Your task to perform on an android device: Show me popular games on the Play Store Image 0: 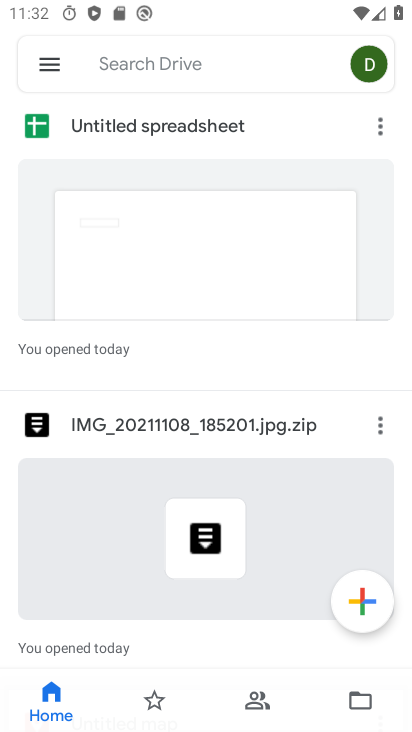
Step 0: press home button
Your task to perform on an android device: Show me popular games on the Play Store Image 1: 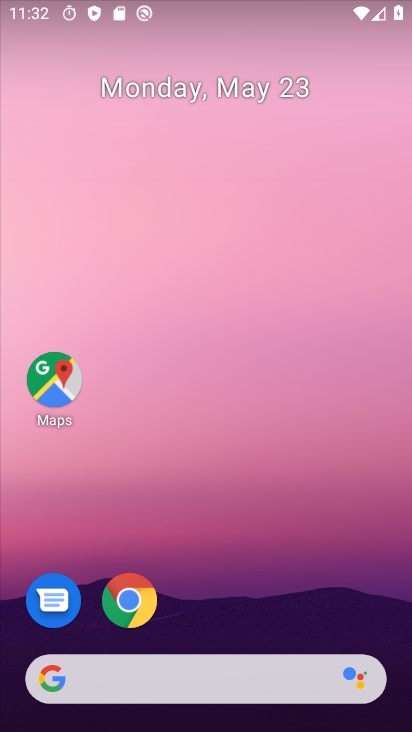
Step 1: drag from (270, 601) to (331, 15)
Your task to perform on an android device: Show me popular games on the Play Store Image 2: 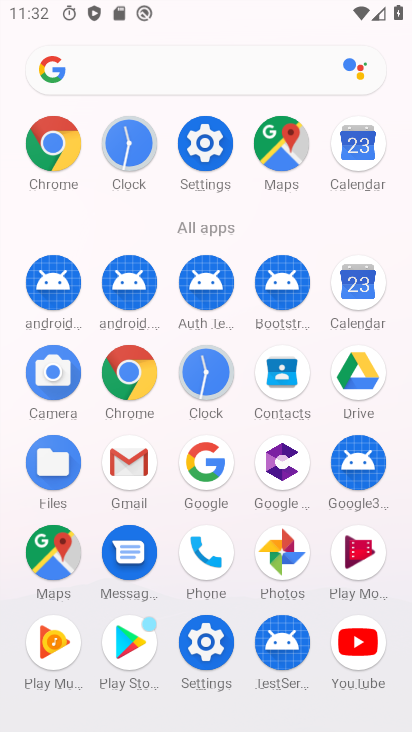
Step 2: click (139, 638)
Your task to perform on an android device: Show me popular games on the Play Store Image 3: 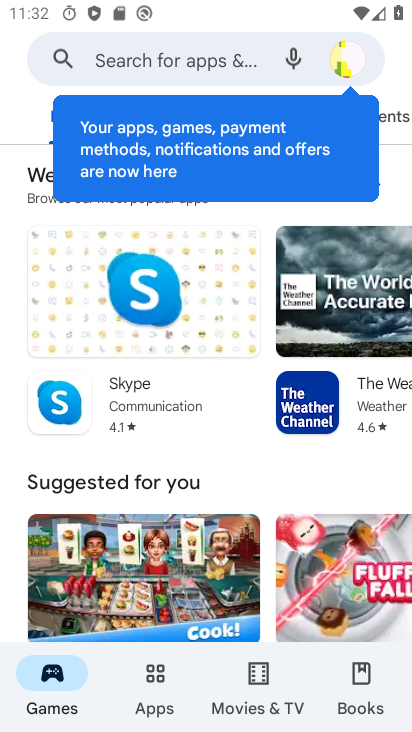
Step 3: drag from (173, 570) to (260, 106)
Your task to perform on an android device: Show me popular games on the Play Store Image 4: 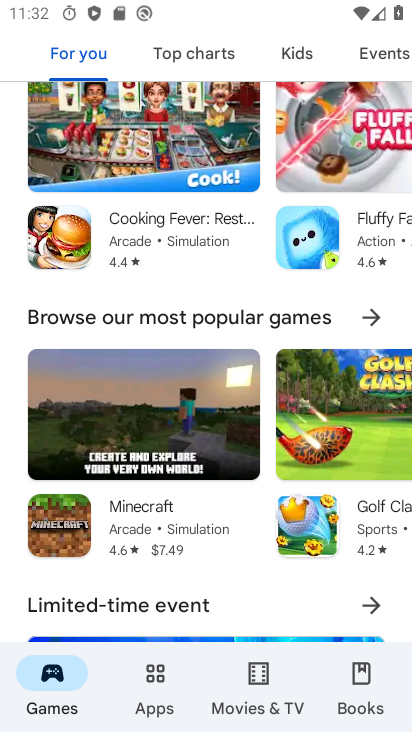
Step 4: drag from (197, 549) to (301, 115)
Your task to perform on an android device: Show me popular games on the Play Store Image 5: 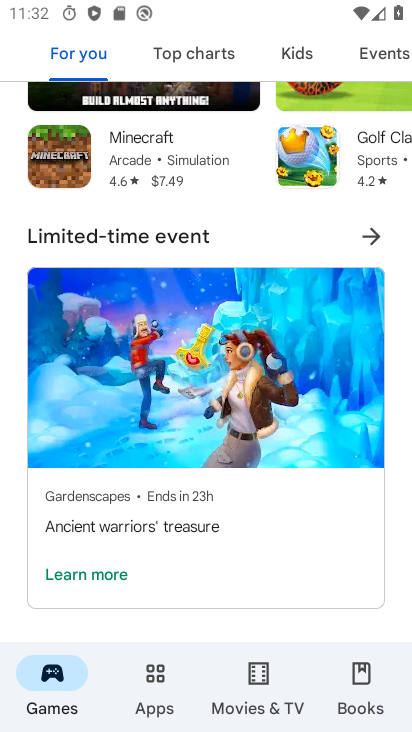
Step 5: drag from (206, 496) to (298, 109)
Your task to perform on an android device: Show me popular games on the Play Store Image 6: 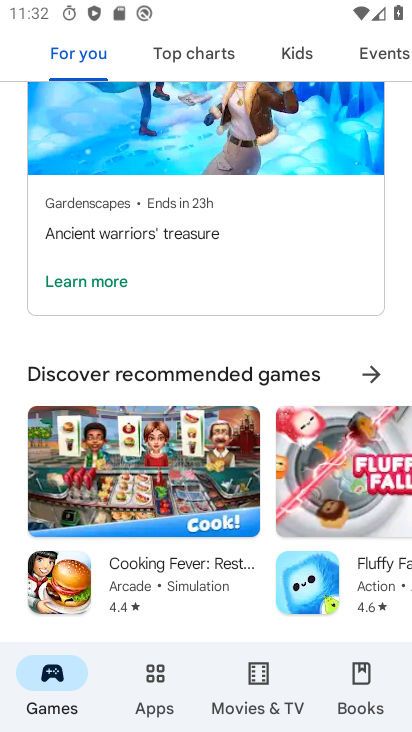
Step 6: drag from (206, 474) to (340, 104)
Your task to perform on an android device: Show me popular games on the Play Store Image 7: 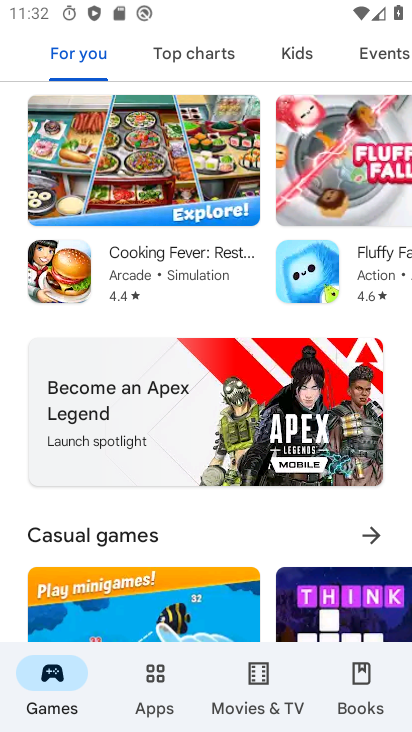
Step 7: drag from (228, 501) to (356, 141)
Your task to perform on an android device: Show me popular games on the Play Store Image 8: 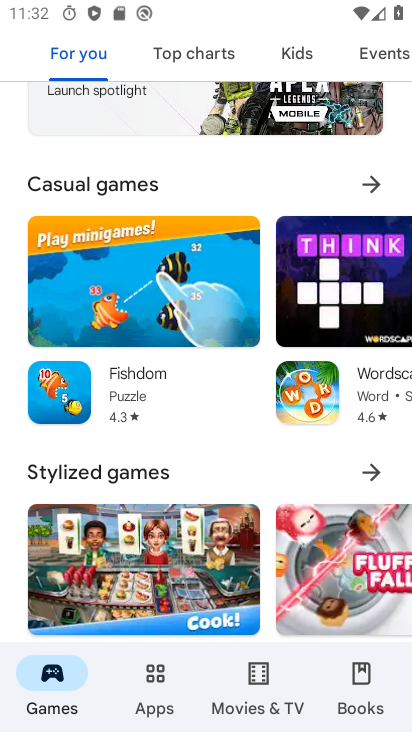
Step 8: drag from (236, 453) to (317, 166)
Your task to perform on an android device: Show me popular games on the Play Store Image 9: 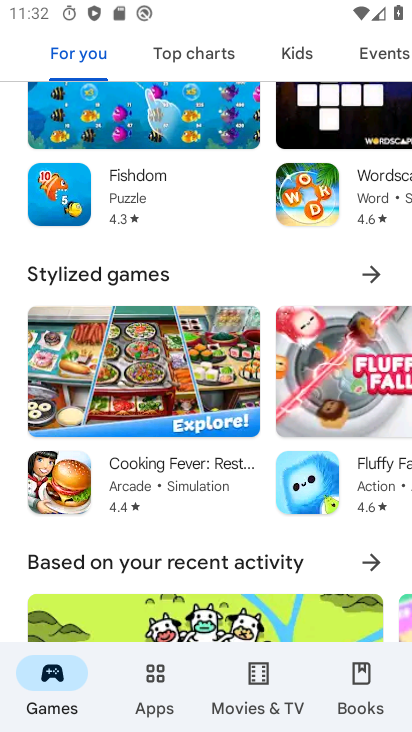
Step 9: drag from (189, 597) to (302, 245)
Your task to perform on an android device: Show me popular games on the Play Store Image 10: 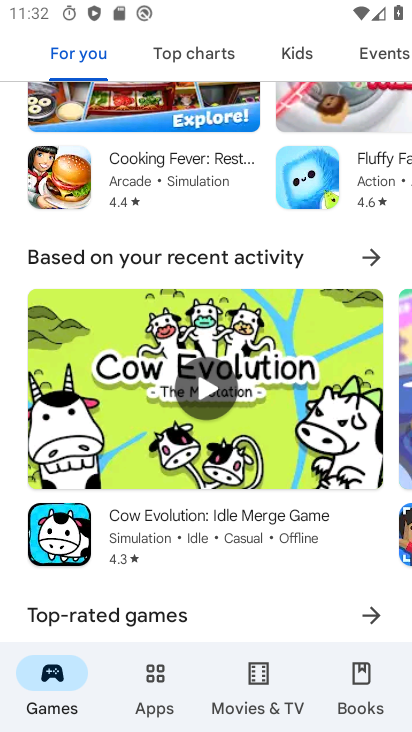
Step 10: drag from (201, 593) to (310, 298)
Your task to perform on an android device: Show me popular games on the Play Store Image 11: 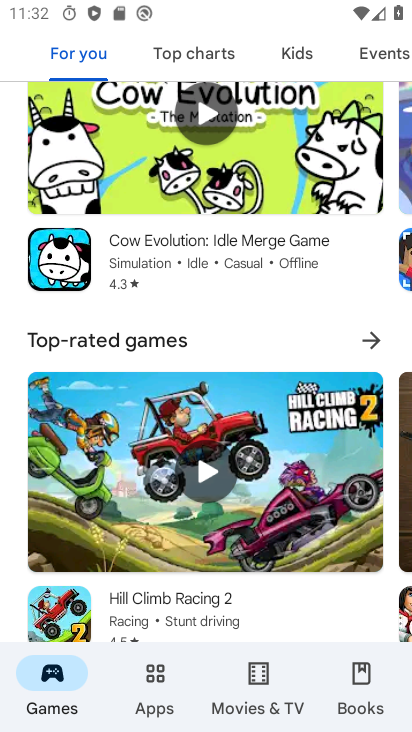
Step 11: drag from (232, 569) to (284, 256)
Your task to perform on an android device: Show me popular games on the Play Store Image 12: 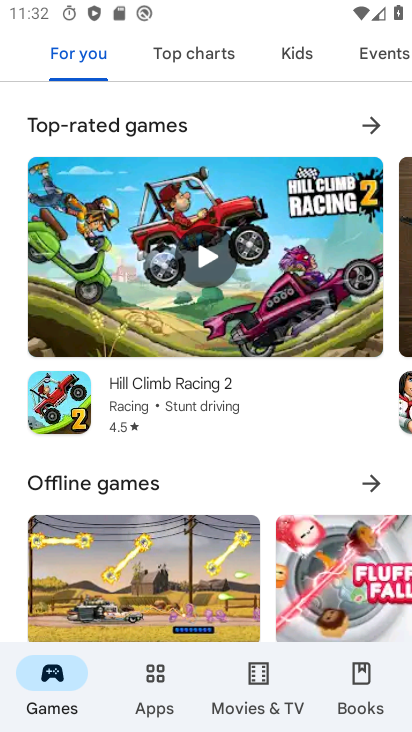
Step 12: drag from (254, 477) to (293, 1)
Your task to perform on an android device: Show me popular games on the Play Store Image 13: 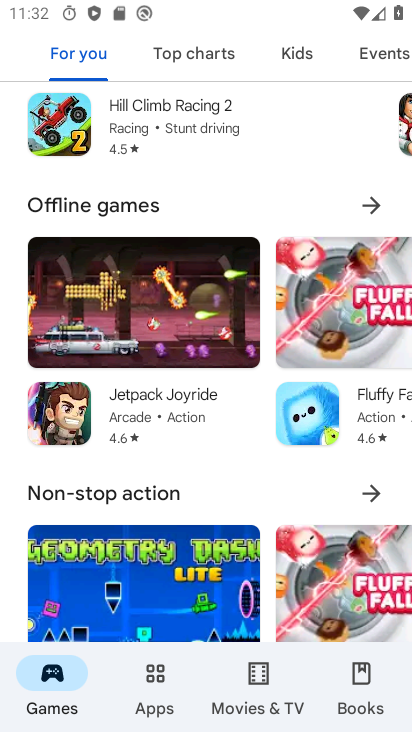
Step 13: drag from (249, 485) to (287, 43)
Your task to perform on an android device: Show me popular games on the Play Store Image 14: 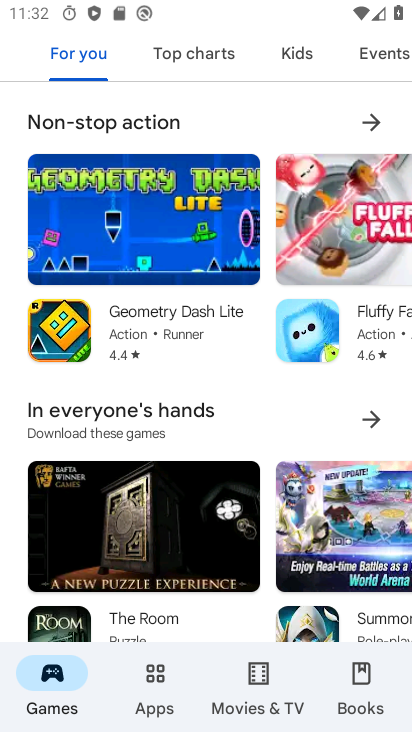
Step 14: drag from (241, 436) to (297, 60)
Your task to perform on an android device: Show me popular games on the Play Store Image 15: 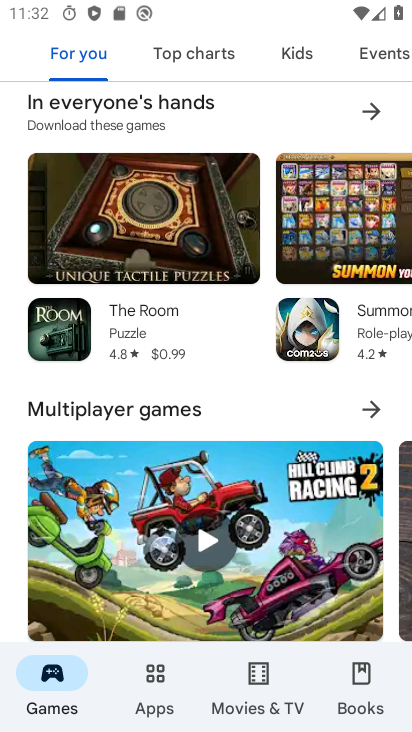
Step 15: drag from (236, 470) to (293, 108)
Your task to perform on an android device: Show me popular games on the Play Store Image 16: 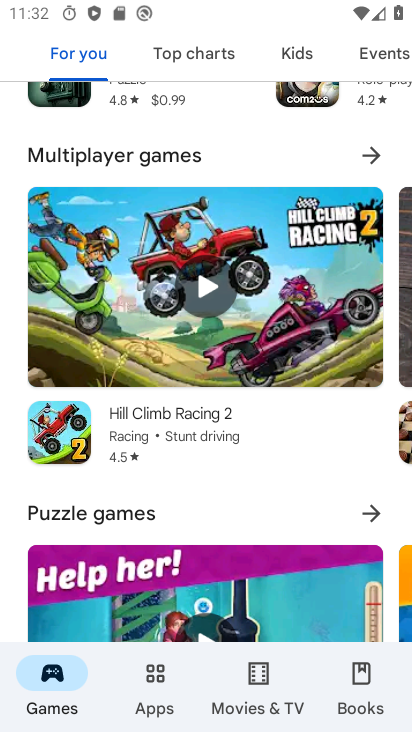
Step 16: drag from (191, 528) to (301, 165)
Your task to perform on an android device: Show me popular games on the Play Store Image 17: 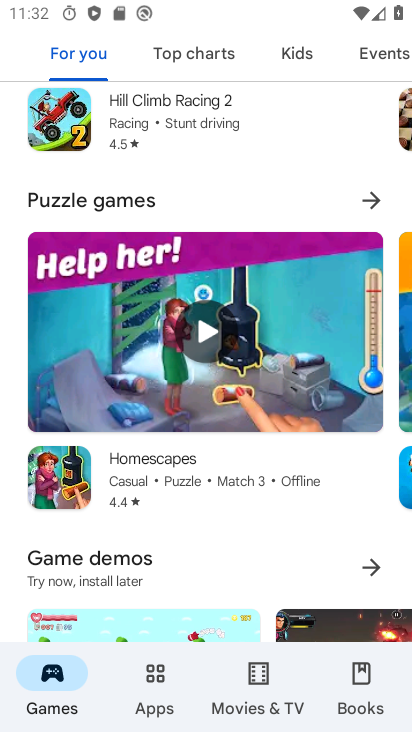
Step 17: drag from (190, 544) to (290, 197)
Your task to perform on an android device: Show me popular games on the Play Store Image 18: 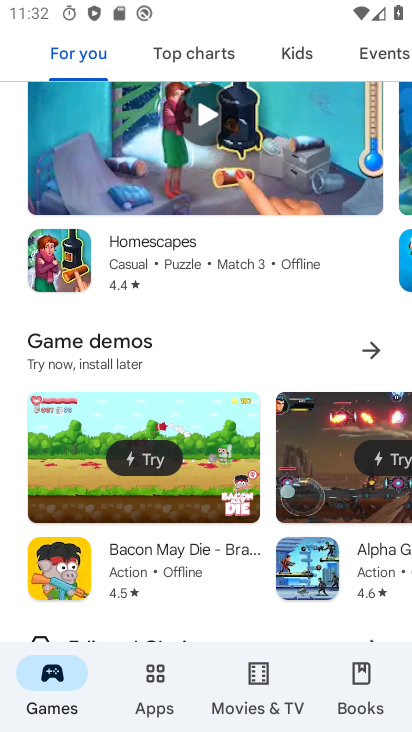
Step 18: drag from (172, 488) to (279, 176)
Your task to perform on an android device: Show me popular games on the Play Store Image 19: 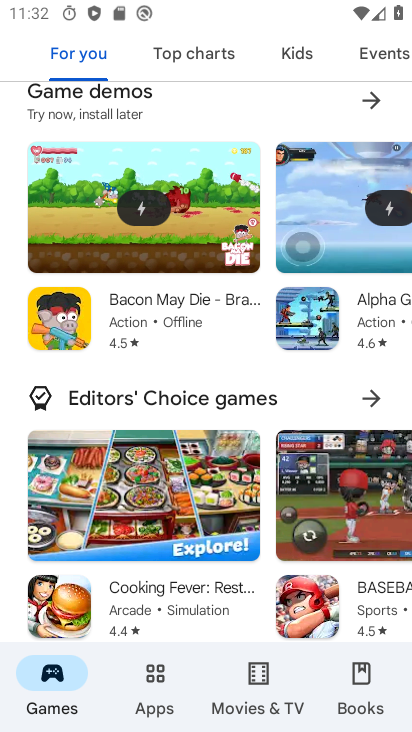
Step 19: drag from (102, 546) to (258, 233)
Your task to perform on an android device: Show me popular games on the Play Store Image 20: 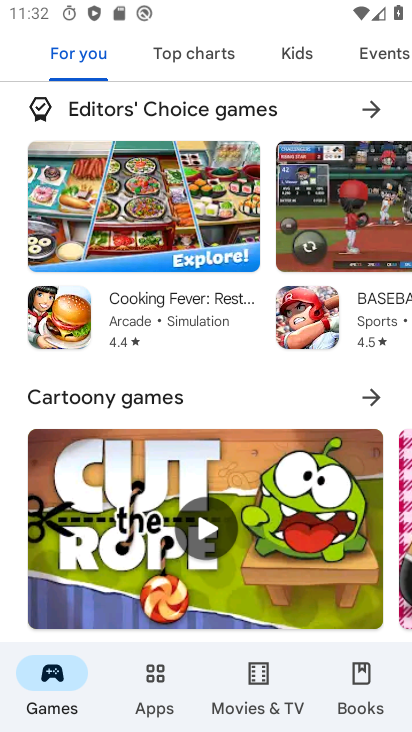
Step 20: drag from (145, 532) to (311, 278)
Your task to perform on an android device: Show me popular games on the Play Store Image 21: 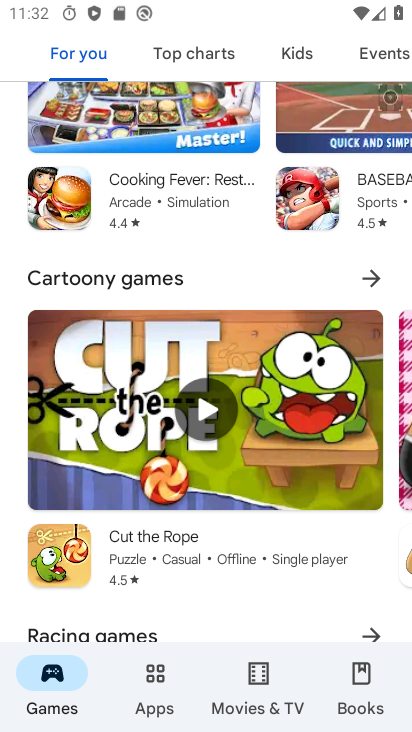
Step 21: drag from (231, 581) to (279, 307)
Your task to perform on an android device: Show me popular games on the Play Store Image 22: 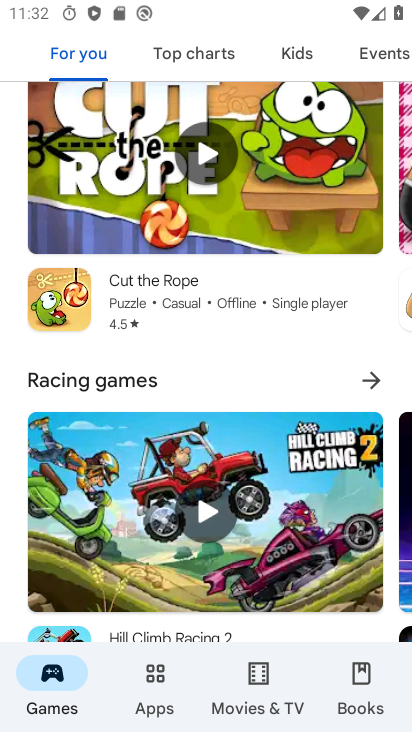
Step 22: drag from (319, 496) to (344, 51)
Your task to perform on an android device: Show me popular games on the Play Store Image 23: 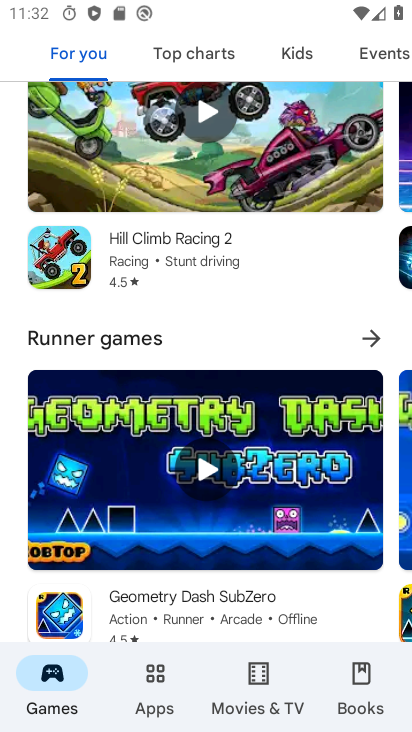
Step 23: drag from (276, 443) to (307, 77)
Your task to perform on an android device: Show me popular games on the Play Store Image 24: 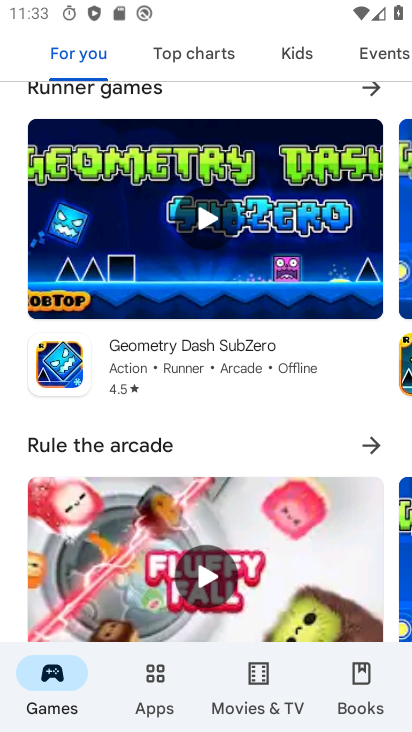
Step 24: drag from (262, 462) to (364, 87)
Your task to perform on an android device: Show me popular games on the Play Store Image 25: 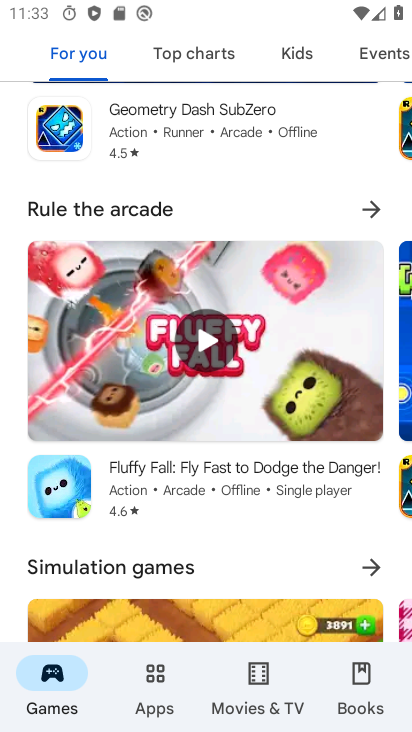
Step 25: drag from (244, 501) to (337, 128)
Your task to perform on an android device: Show me popular games on the Play Store Image 26: 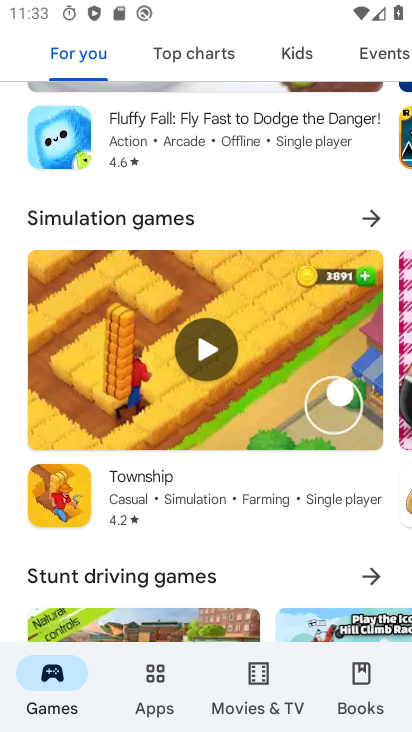
Step 26: drag from (221, 470) to (324, 175)
Your task to perform on an android device: Show me popular games on the Play Store Image 27: 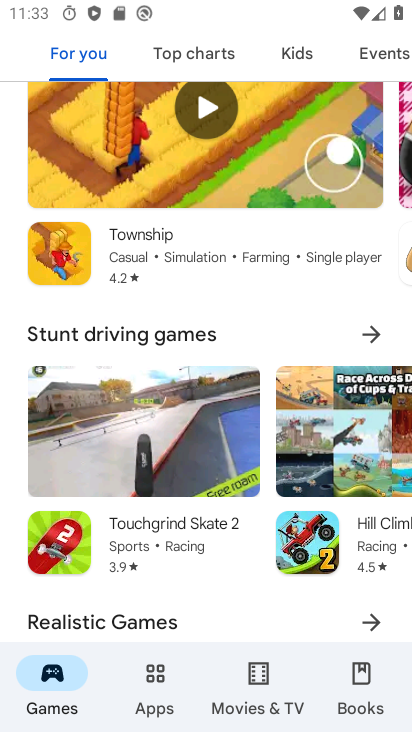
Step 27: drag from (184, 568) to (308, 217)
Your task to perform on an android device: Show me popular games on the Play Store Image 28: 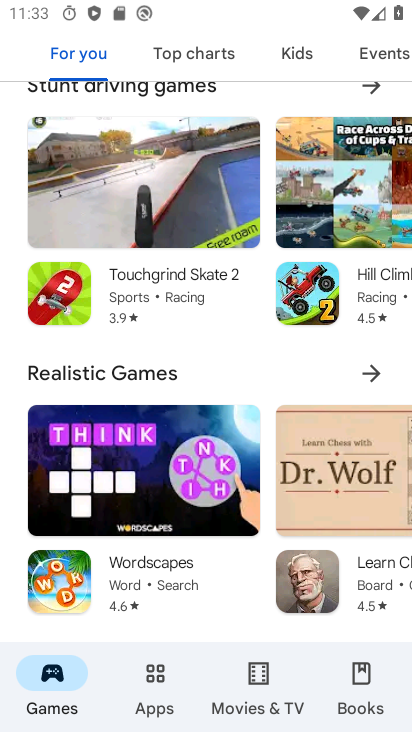
Step 28: drag from (252, 588) to (325, 221)
Your task to perform on an android device: Show me popular games on the Play Store Image 29: 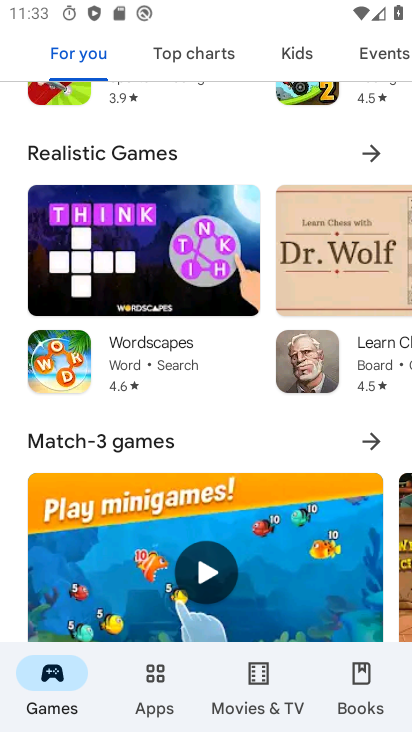
Step 29: drag from (268, 594) to (326, 241)
Your task to perform on an android device: Show me popular games on the Play Store Image 30: 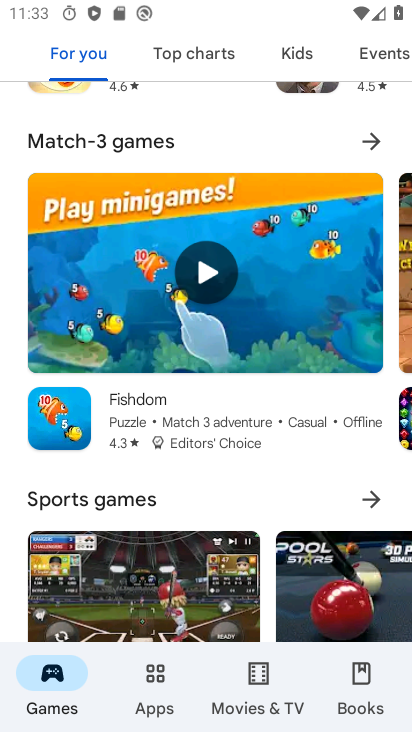
Step 30: drag from (194, 539) to (293, 182)
Your task to perform on an android device: Show me popular games on the Play Store Image 31: 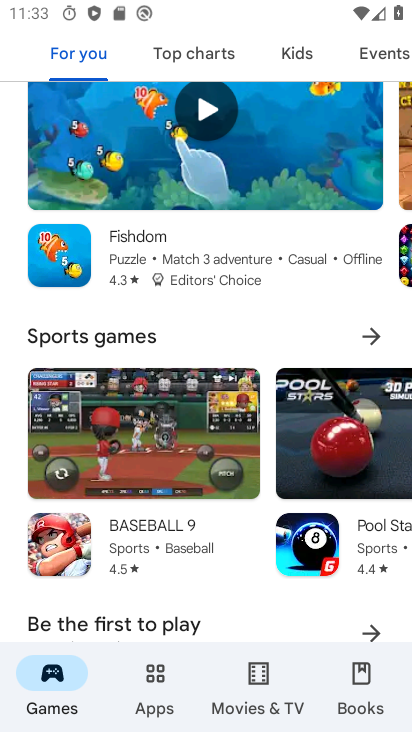
Step 31: drag from (179, 537) to (316, 149)
Your task to perform on an android device: Show me popular games on the Play Store Image 32: 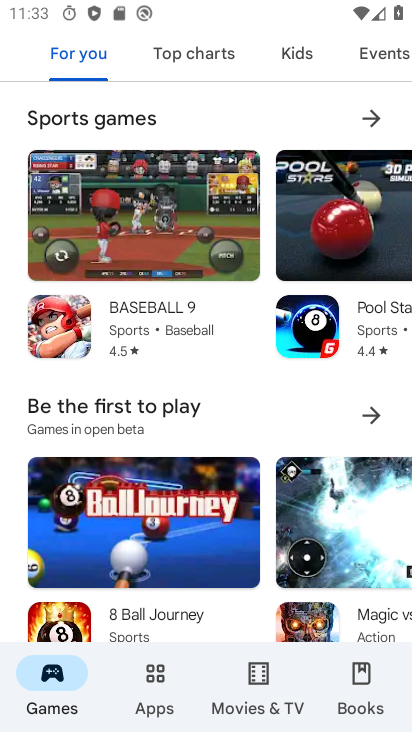
Step 32: drag from (179, 473) to (277, 160)
Your task to perform on an android device: Show me popular games on the Play Store Image 33: 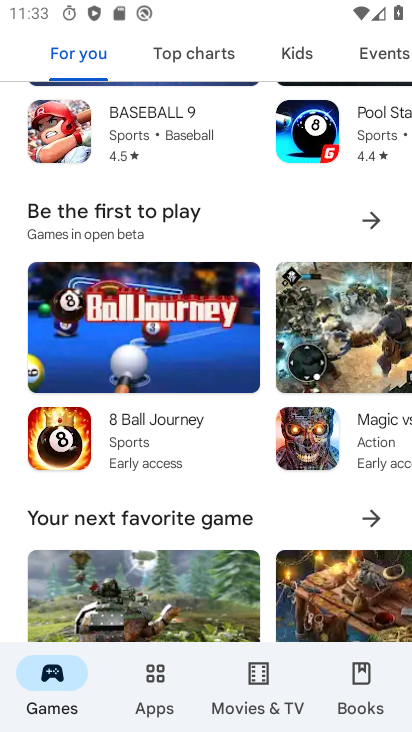
Step 33: drag from (195, 526) to (283, 163)
Your task to perform on an android device: Show me popular games on the Play Store Image 34: 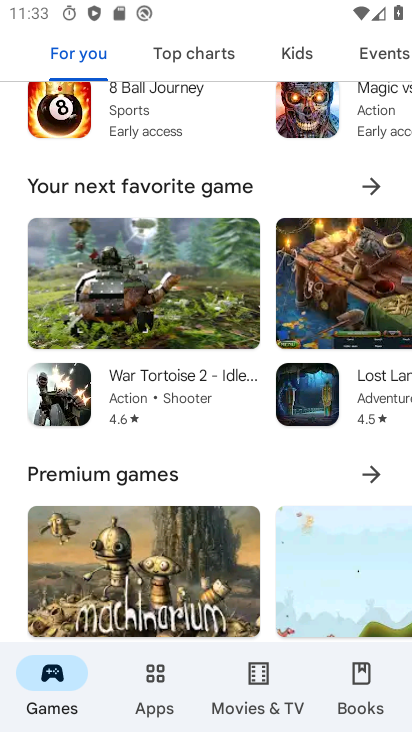
Step 34: drag from (183, 516) to (263, 158)
Your task to perform on an android device: Show me popular games on the Play Store Image 35: 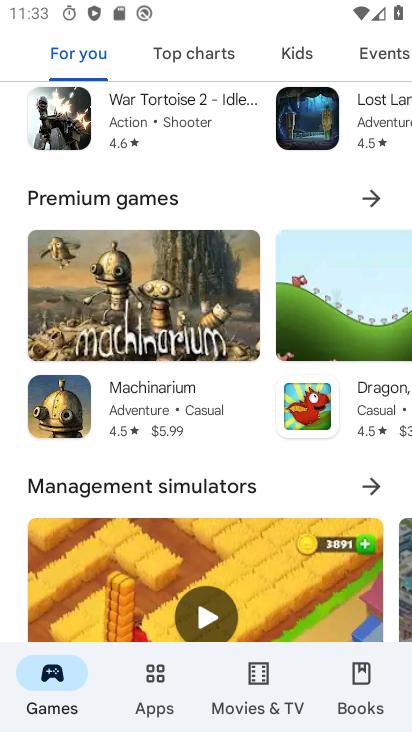
Step 35: drag from (182, 503) to (293, 163)
Your task to perform on an android device: Show me popular games on the Play Store Image 36: 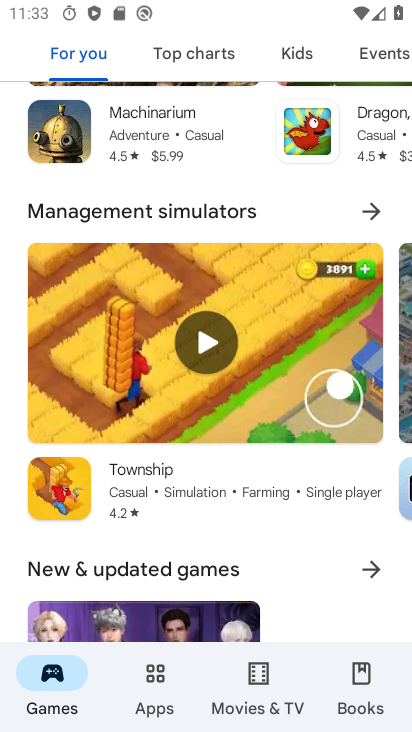
Step 36: drag from (162, 537) to (273, 193)
Your task to perform on an android device: Show me popular games on the Play Store Image 37: 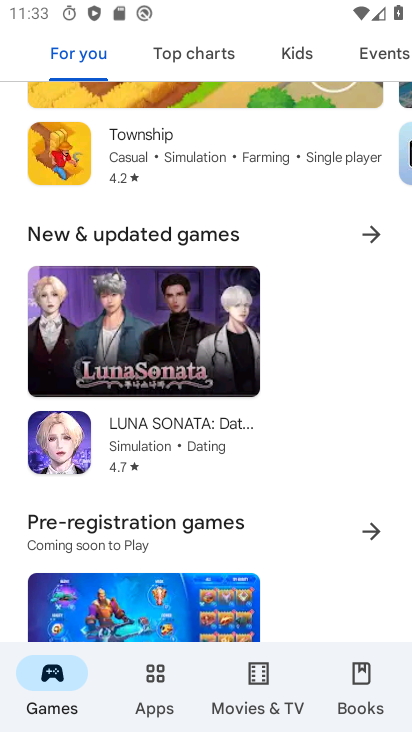
Step 37: drag from (227, 527) to (315, 225)
Your task to perform on an android device: Show me popular games on the Play Store Image 38: 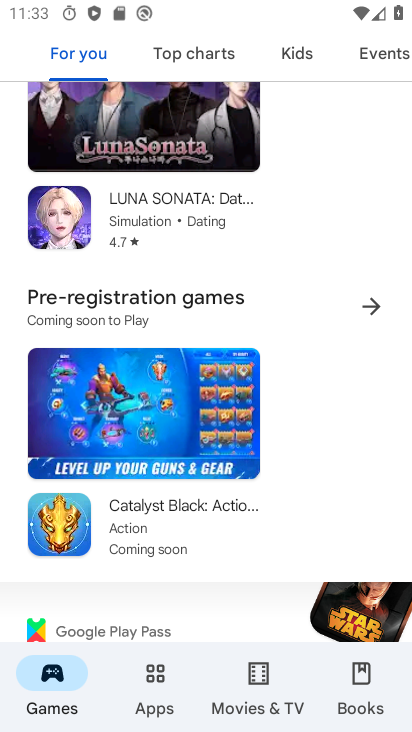
Step 38: drag from (209, 538) to (279, 195)
Your task to perform on an android device: Show me popular games on the Play Store Image 39: 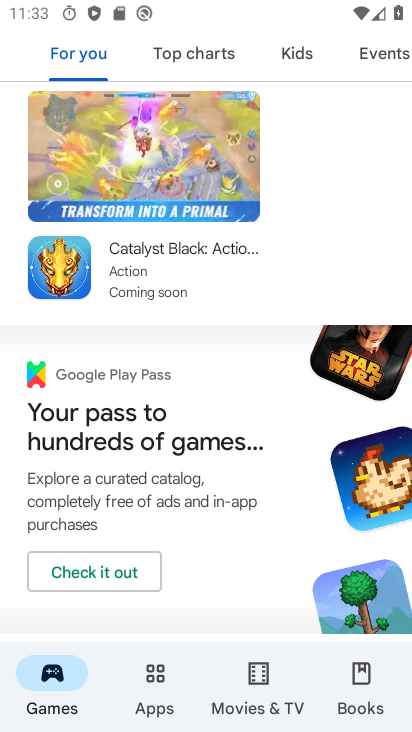
Step 39: drag from (195, 541) to (296, 204)
Your task to perform on an android device: Show me popular games on the Play Store Image 40: 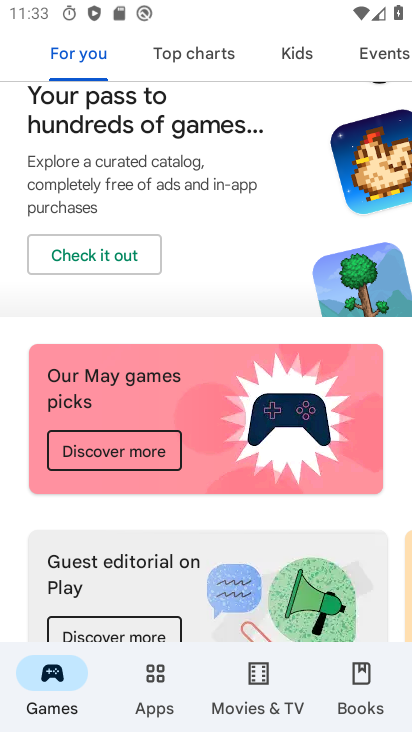
Step 40: drag from (200, 552) to (289, 218)
Your task to perform on an android device: Show me popular games on the Play Store Image 41: 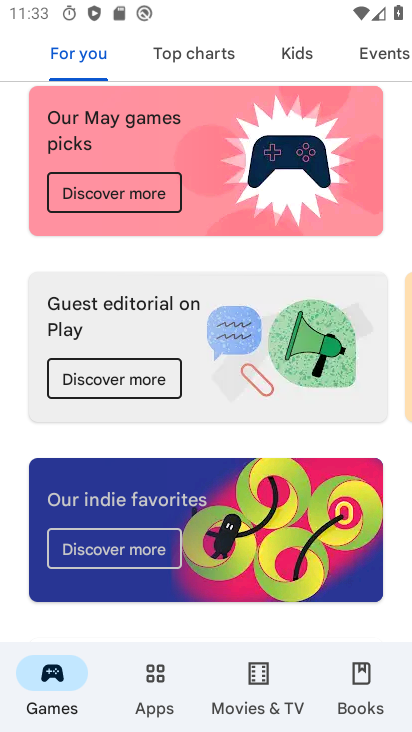
Step 41: drag from (254, 548) to (351, 65)
Your task to perform on an android device: Show me popular games on the Play Store Image 42: 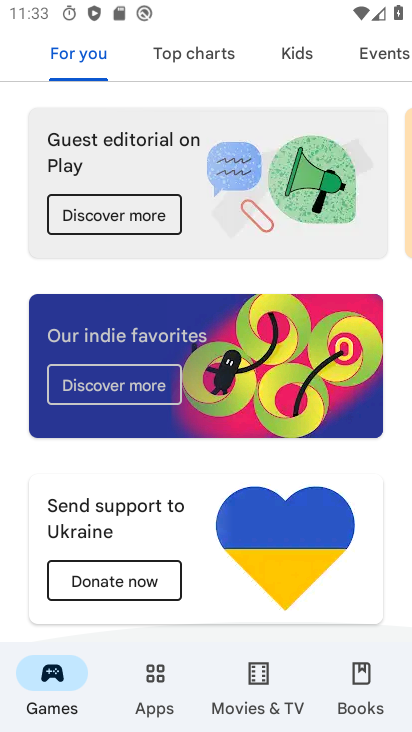
Step 42: drag from (231, 536) to (334, 131)
Your task to perform on an android device: Show me popular games on the Play Store Image 43: 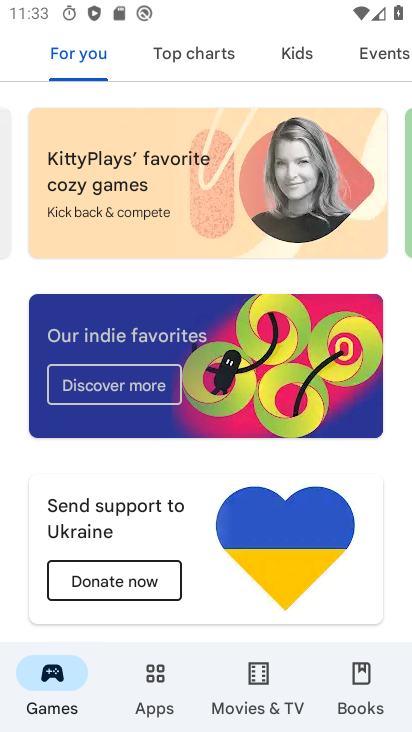
Step 43: drag from (284, 211) to (274, 612)
Your task to perform on an android device: Show me popular games on the Play Store Image 44: 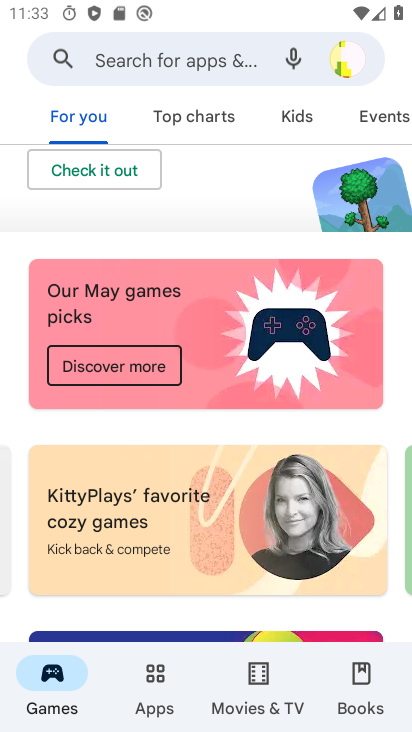
Step 44: drag from (246, 233) to (265, 537)
Your task to perform on an android device: Show me popular games on the Play Store Image 45: 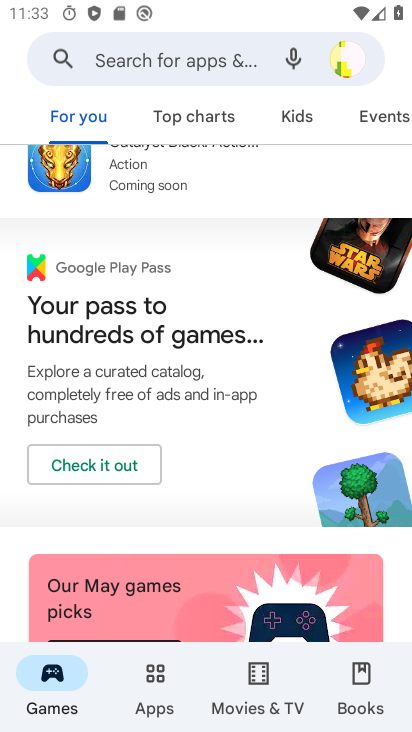
Step 45: drag from (238, 215) to (239, 561)
Your task to perform on an android device: Show me popular games on the Play Store Image 46: 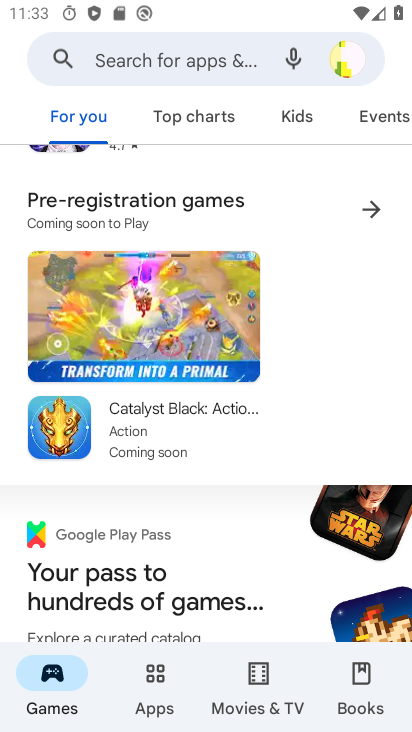
Step 46: drag from (211, 199) to (219, 563)
Your task to perform on an android device: Show me popular games on the Play Store Image 47: 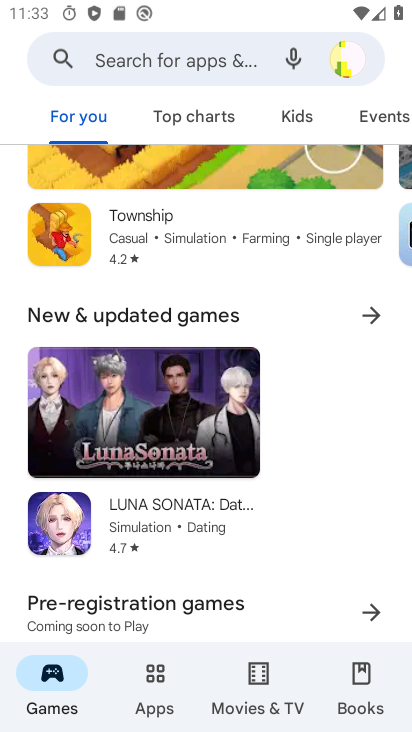
Step 47: drag from (192, 184) to (242, 565)
Your task to perform on an android device: Show me popular games on the Play Store Image 48: 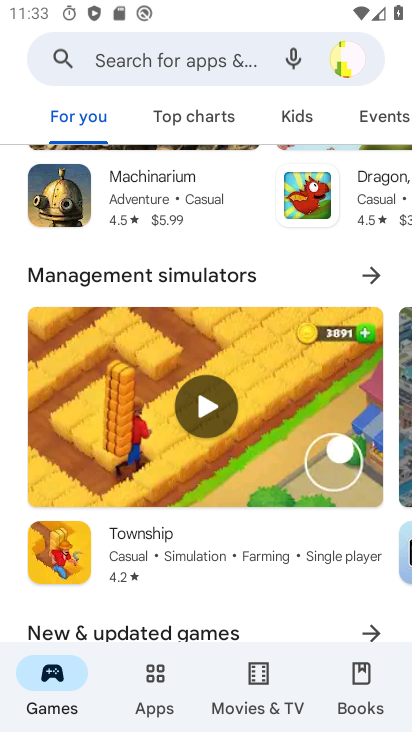
Step 48: drag from (211, 171) to (274, 553)
Your task to perform on an android device: Show me popular games on the Play Store Image 49: 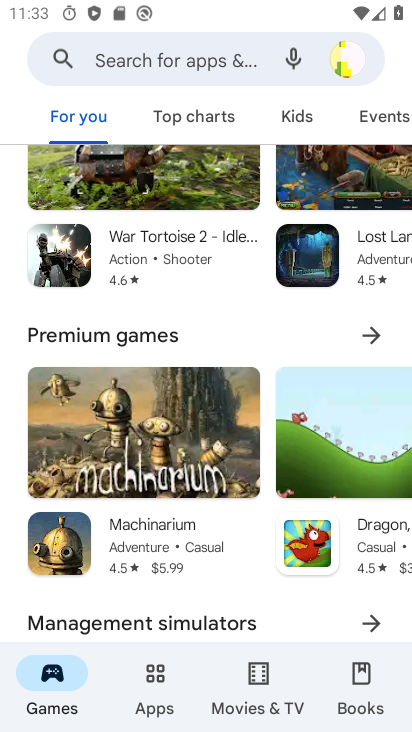
Step 49: drag from (208, 234) to (256, 595)
Your task to perform on an android device: Show me popular games on the Play Store Image 50: 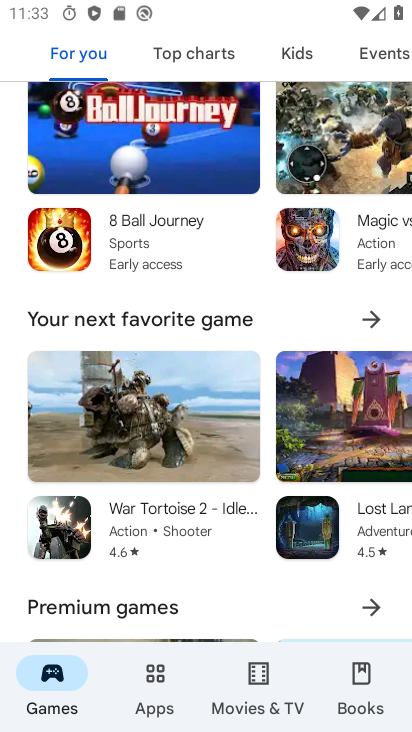
Step 50: drag from (265, 97) to (266, 650)
Your task to perform on an android device: Show me popular games on the Play Store Image 51: 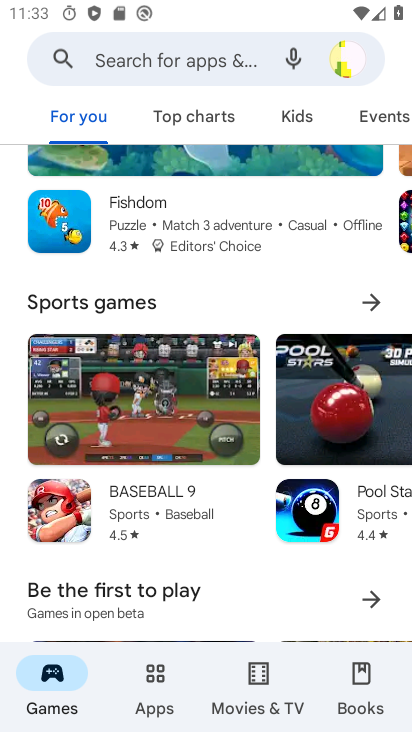
Step 51: drag from (290, 151) to (261, 640)
Your task to perform on an android device: Show me popular games on the Play Store Image 52: 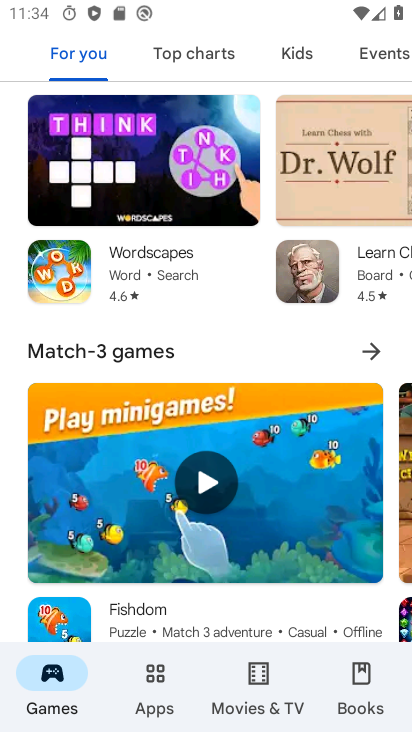
Step 52: drag from (279, 146) to (290, 603)
Your task to perform on an android device: Show me popular games on the Play Store Image 53: 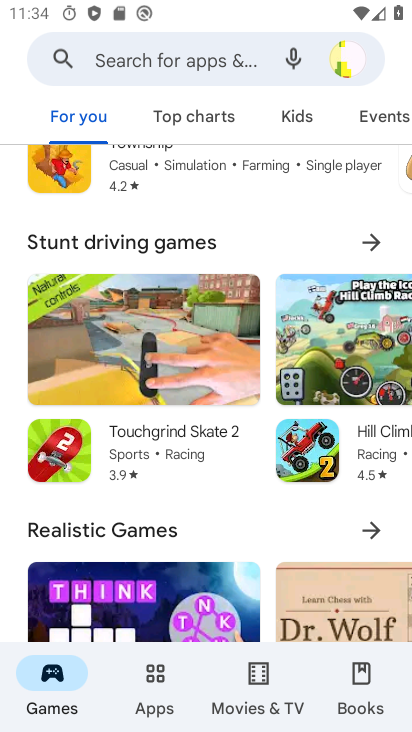
Step 53: drag from (286, 150) to (285, 552)
Your task to perform on an android device: Show me popular games on the Play Store Image 54: 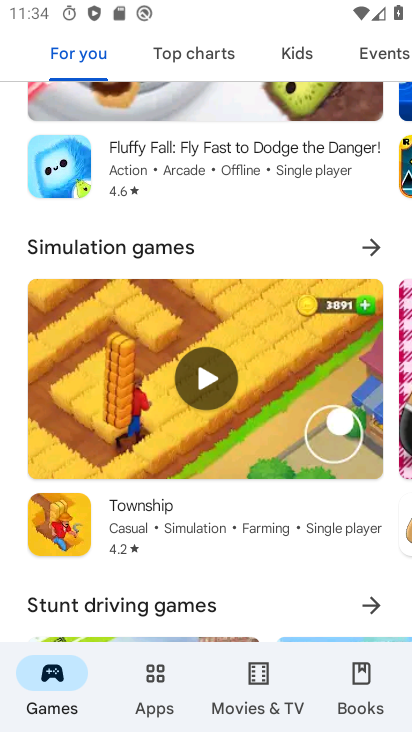
Step 54: drag from (232, 186) to (288, 595)
Your task to perform on an android device: Show me popular games on the Play Store Image 55: 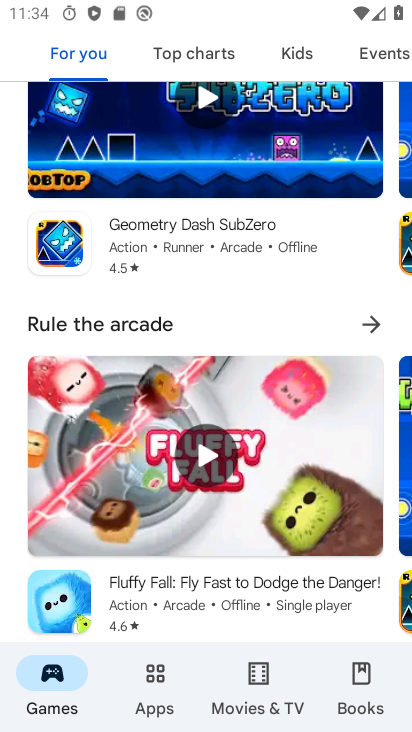
Step 55: drag from (250, 89) to (307, 637)
Your task to perform on an android device: Show me popular games on the Play Store Image 56: 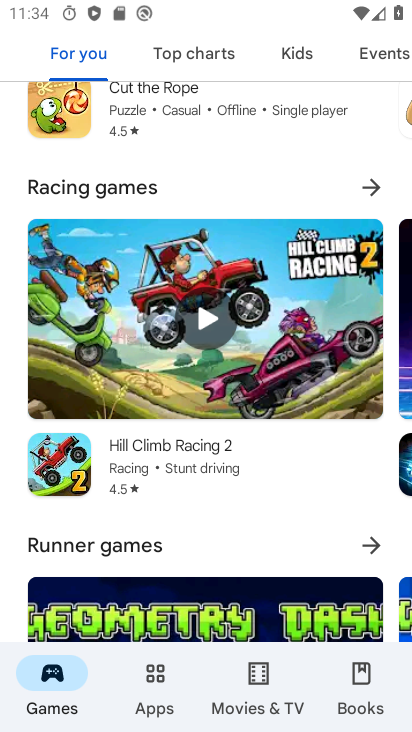
Step 56: drag from (233, 97) to (275, 586)
Your task to perform on an android device: Show me popular games on the Play Store Image 57: 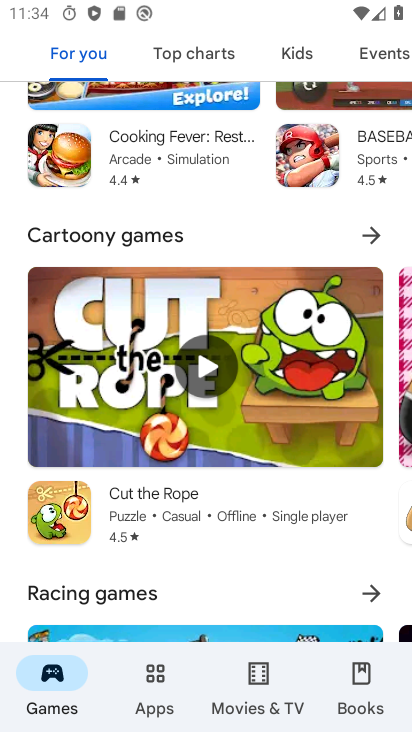
Step 57: drag from (225, 88) to (267, 639)
Your task to perform on an android device: Show me popular games on the Play Store Image 58: 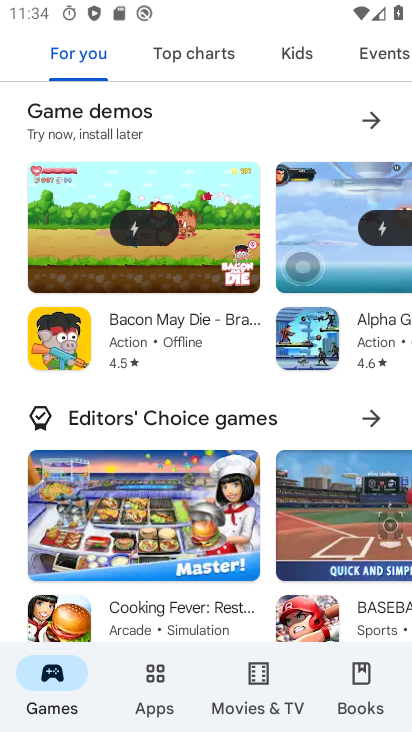
Step 58: drag from (261, 110) to (219, 615)
Your task to perform on an android device: Show me popular games on the Play Store Image 59: 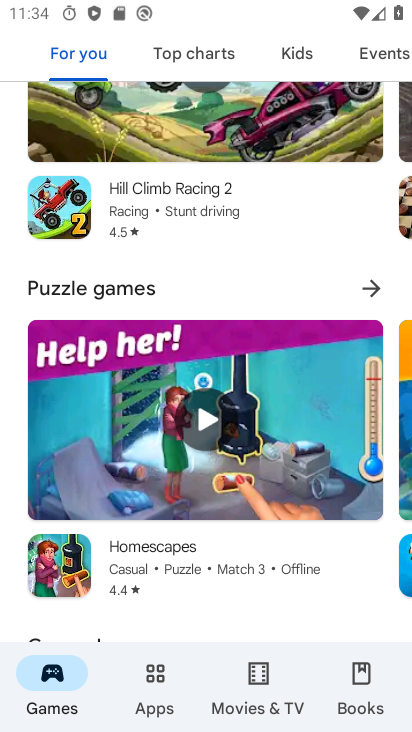
Step 59: drag from (197, 92) to (211, 565)
Your task to perform on an android device: Show me popular games on the Play Store Image 60: 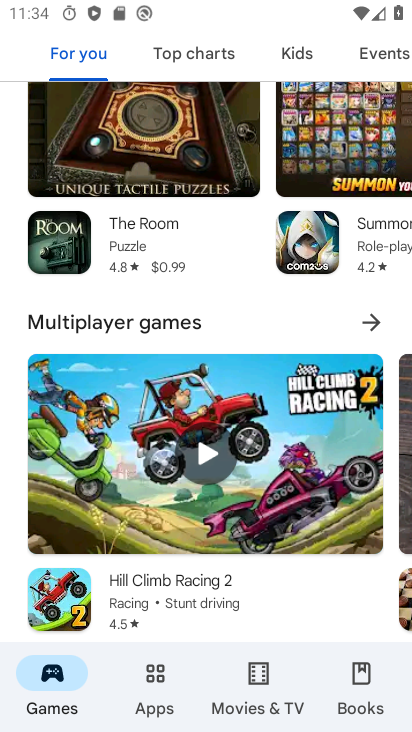
Step 60: drag from (220, 88) to (214, 640)
Your task to perform on an android device: Show me popular games on the Play Store Image 61: 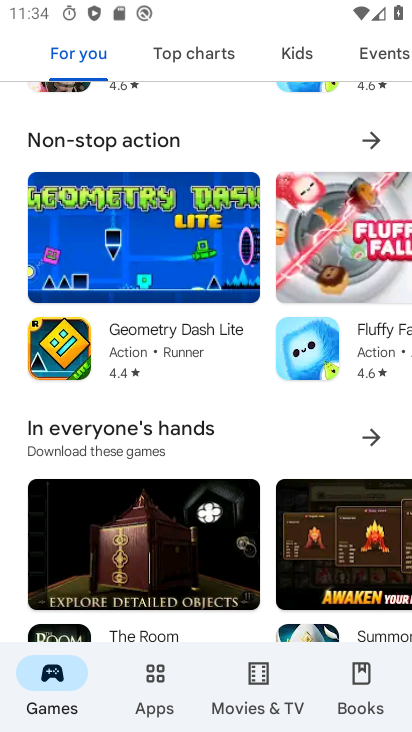
Step 61: drag from (200, 126) to (223, 557)
Your task to perform on an android device: Show me popular games on the Play Store Image 62: 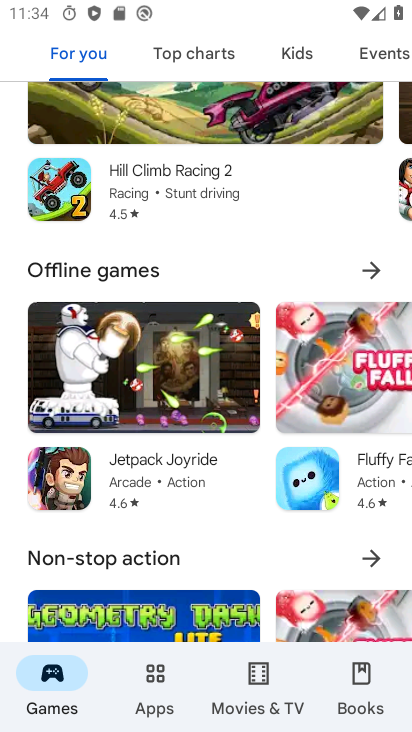
Step 62: drag from (195, 103) to (233, 631)
Your task to perform on an android device: Show me popular games on the Play Store Image 63: 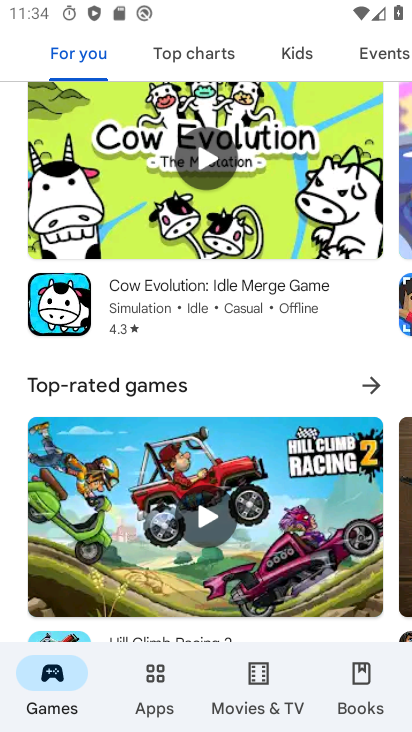
Step 63: drag from (312, 87) to (337, 642)
Your task to perform on an android device: Show me popular games on the Play Store Image 64: 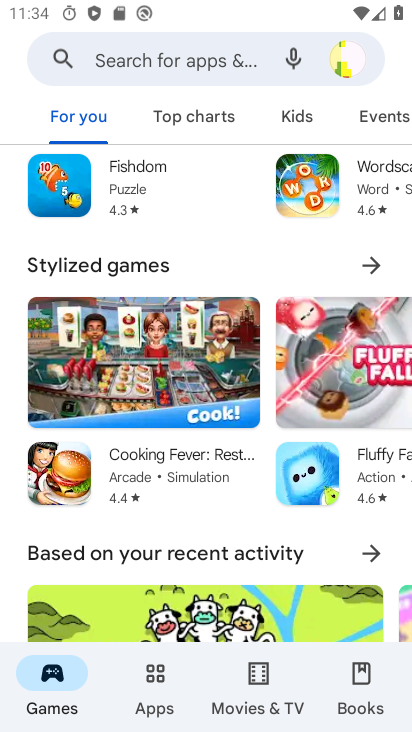
Step 64: drag from (239, 155) to (236, 621)
Your task to perform on an android device: Show me popular games on the Play Store Image 65: 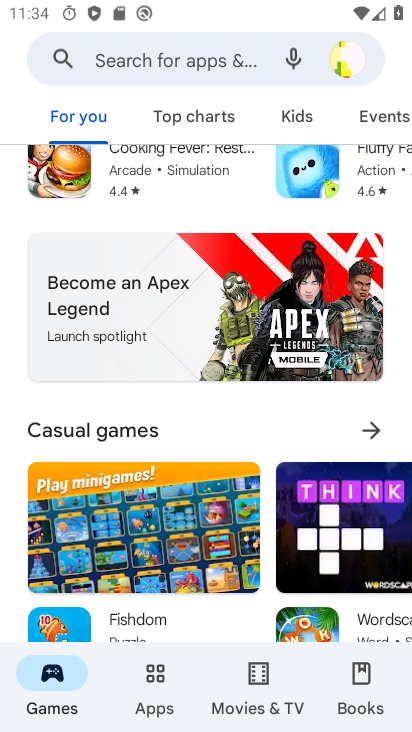
Step 65: drag from (217, 149) to (227, 599)
Your task to perform on an android device: Show me popular games on the Play Store Image 66: 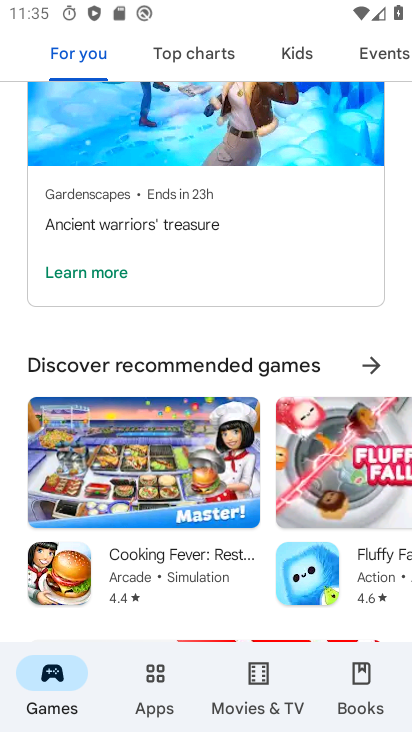
Step 66: drag from (208, 131) to (275, 621)
Your task to perform on an android device: Show me popular games on the Play Store Image 67: 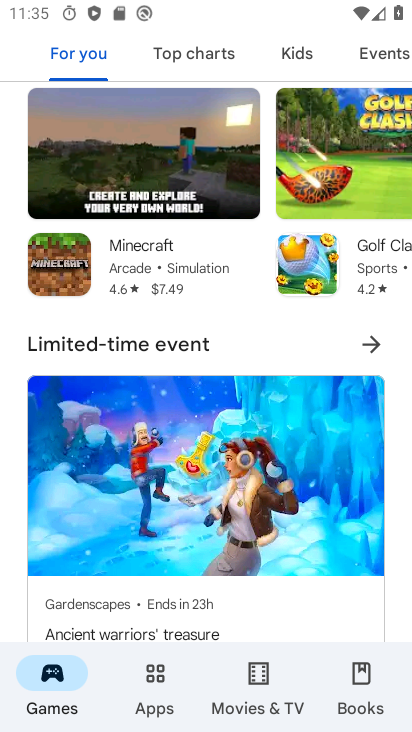
Step 67: drag from (208, 184) to (246, 595)
Your task to perform on an android device: Show me popular games on the Play Store Image 68: 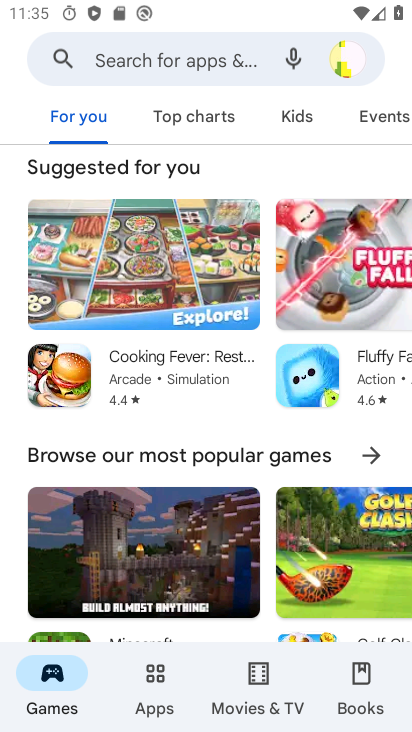
Step 68: drag from (208, 226) to (216, 594)
Your task to perform on an android device: Show me popular games on the Play Store Image 69: 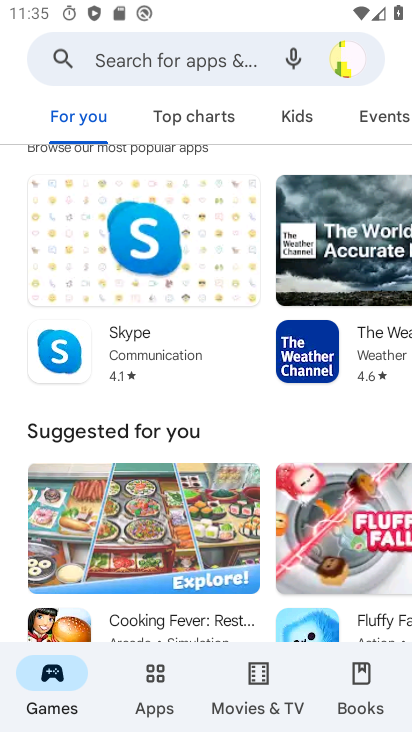
Step 69: drag from (211, 179) to (238, 611)
Your task to perform on an android device: Show me popular games on the Play Store Image 70: 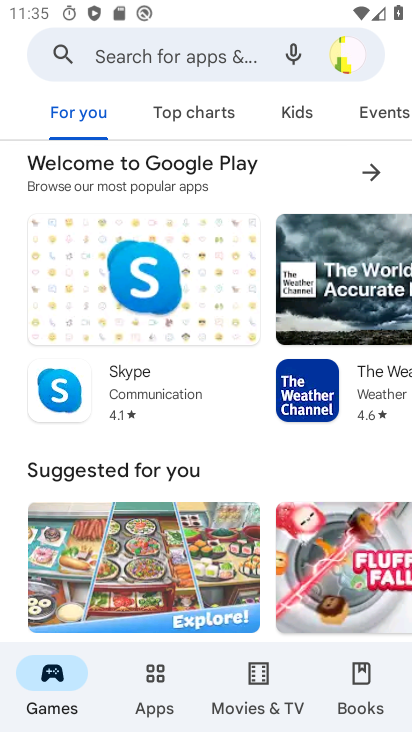
Step 70: drag from (239, 323) to (263, 533)
Your task to perform on an android device: Show me popular games on the Play Store Image 71: 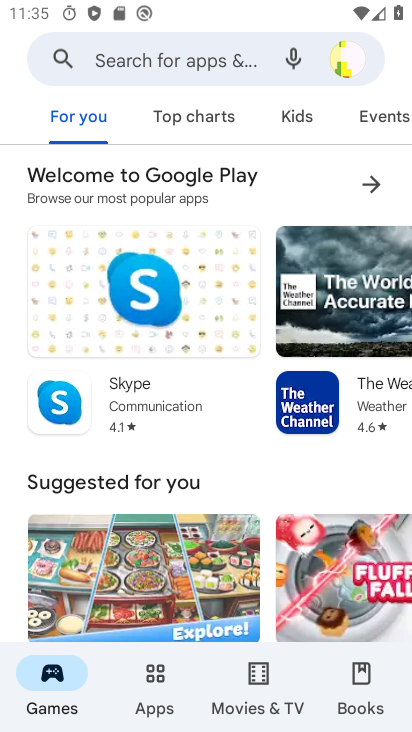
Step 71: drag from (205, 576) to (249, 143)
Your task to perform on an android device: Show me popular games on the Play Store Image 72: 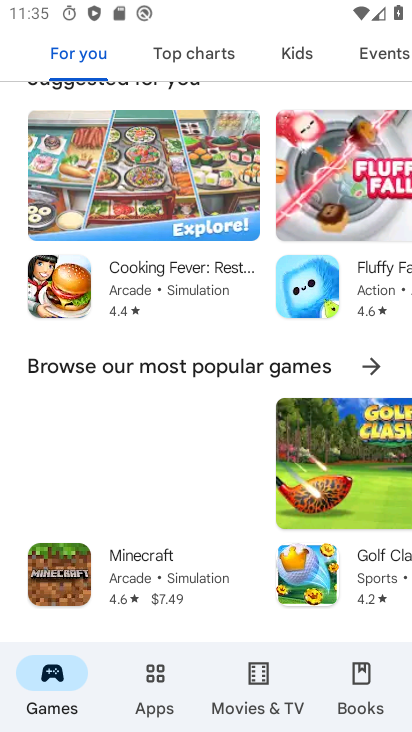
Step 72: drag from (135, 588) to (227, 152)
Your task to perform on an android device: Show me popular games on the Play Store Image 73: 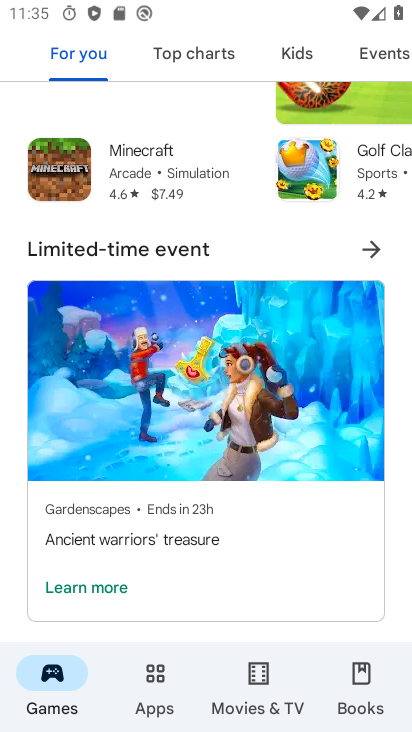
Step 73: drag from (182, 526) to (265, 151)
Your task to perform on an android device: Show me popular games on the Play Store Image 74: 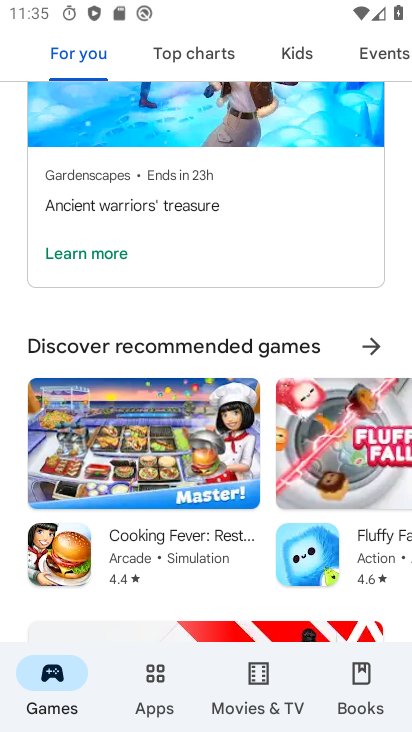
Step 74: click (43, 649)
Your task to perform on an android device: Show me popular games on the Play Store Image 75: 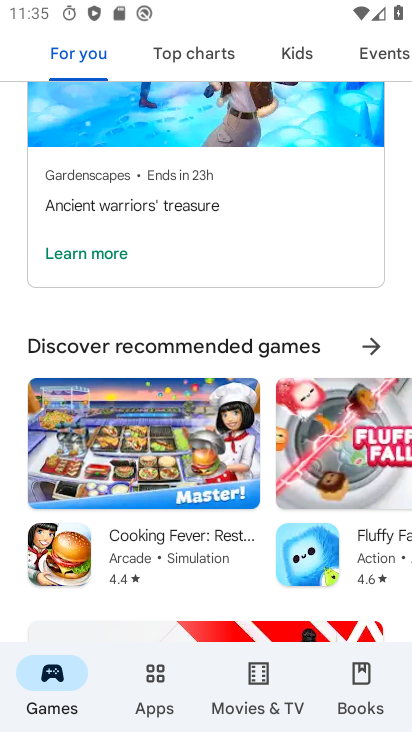
Step 75: task complete